Your task to perform on an android device: Open sound settings Image 0: 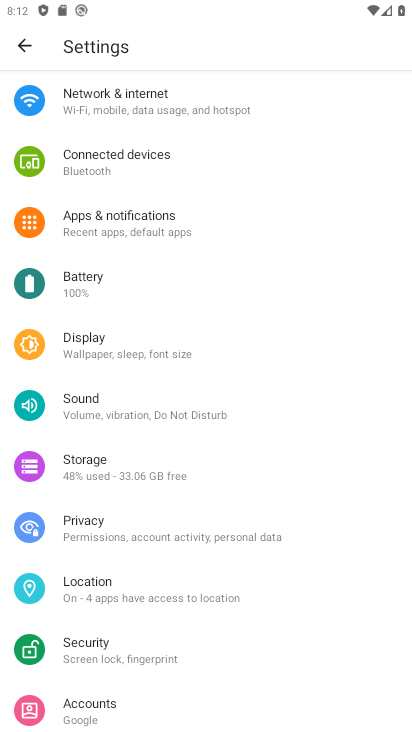
Step 0: click (124, 417)
Your task to perform on an android device: Open sound settings Image 1: 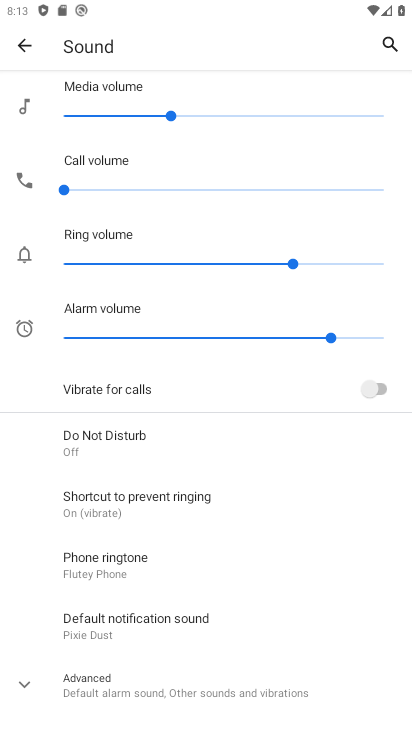
Step 1: task complete